Your task to perform on an android device: Open Youtube and go to the subscriptions tab Image 0: 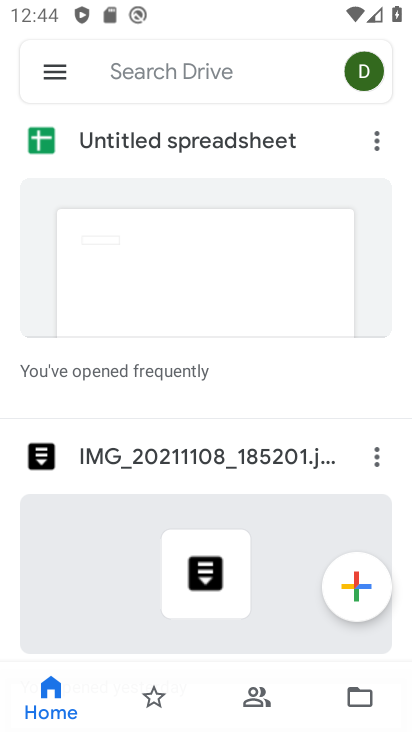
Step 0: press back button
Your task to perform on an android device: Open Youtube and go to the subscriptions tab Image 1: 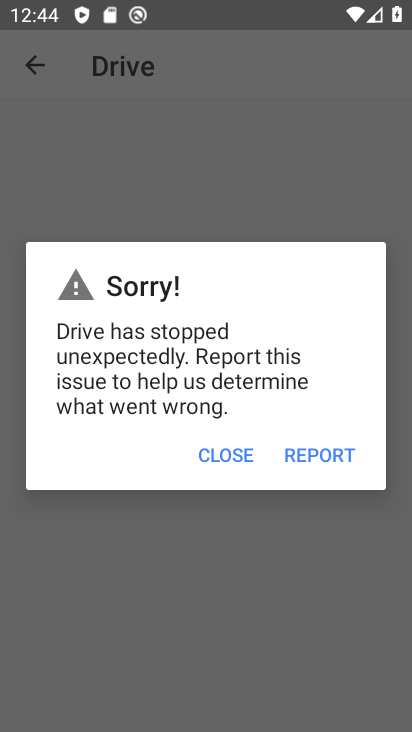
Step 1: press back button
Your task to perform on an android device: Open Youtube and go to the subscriptions tab Image 2: 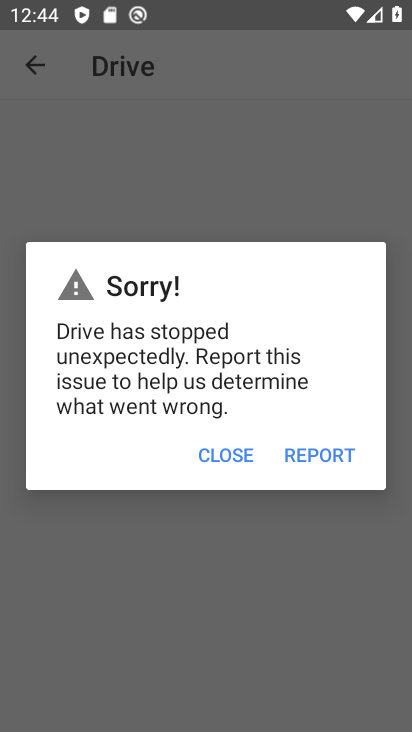
Step 2: press home button
Your task to perform on an android device: Open Youtube and go to the subscriptions tab Image 3: 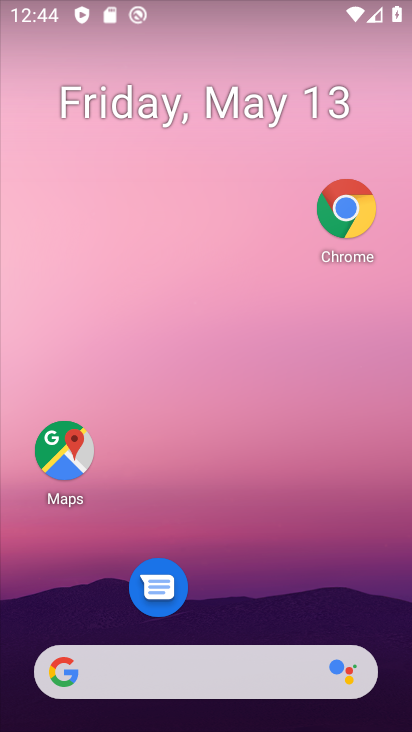
Step 3: drag from (235, 553) to (278, 78)
Your task to perform on an android device: Open Youtube and go to the subscriptions tab Image 4: 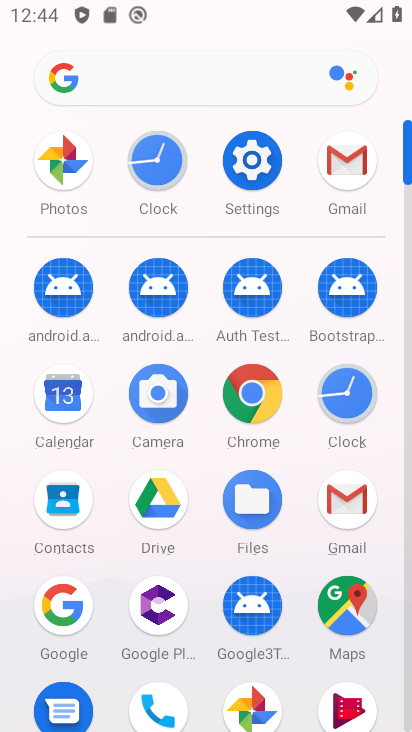
Step 4: drag from (185, 626) to (336, 8)
Your task to perform on an android device: Open Youtube and go to the subscriptions tab Image 5: 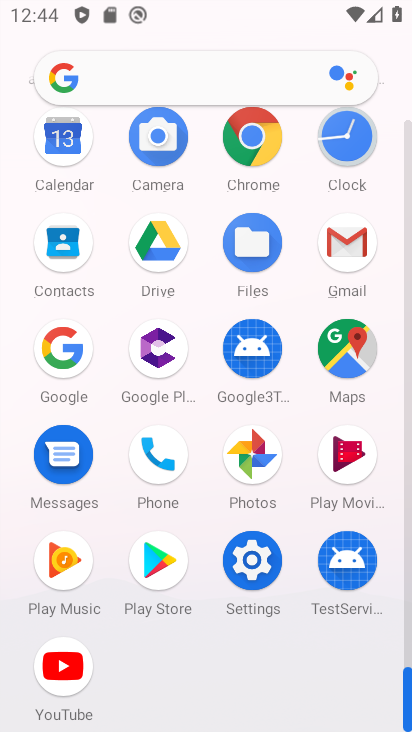
Step 5: click (73, 677)
Your task to perform on an android device: Open Youtube and go to the subscriptions tab Image 6: 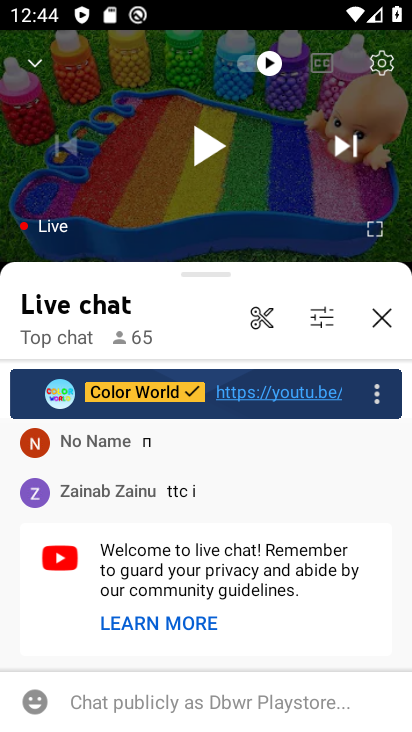
Step 6: click (48, 59)
Your task to perform on an android device: Open Youtube and go to the subscriptions tab Image 7: 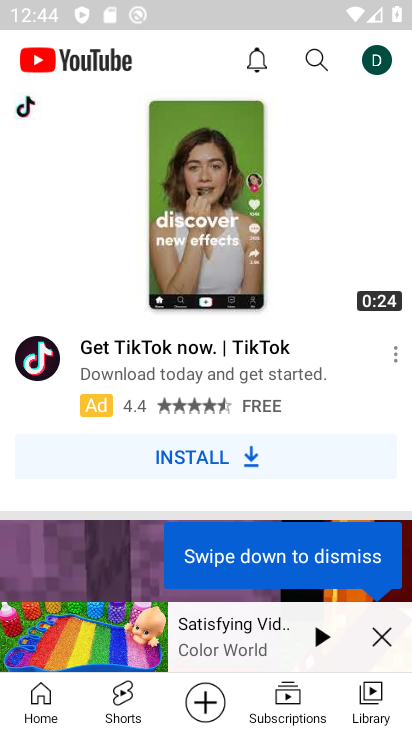
Step 7: click (290, 717)
Your task to perform on an android device: Open Youtube and go to the subscriptions tab Image 8: 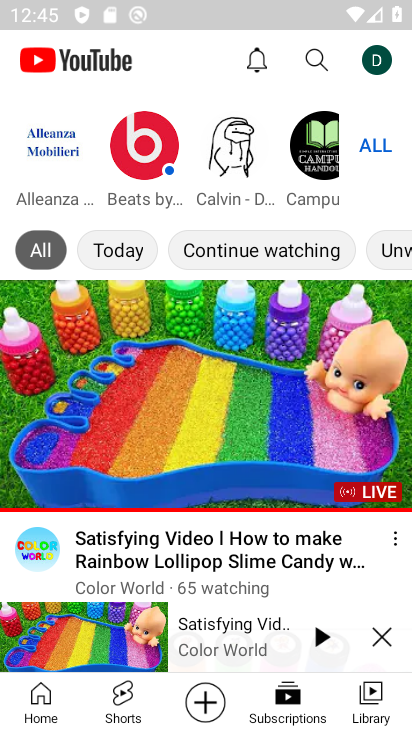
Step 8: task complete